Your task to perform on an android device: choose inbox layout in the gmail app Image 0: 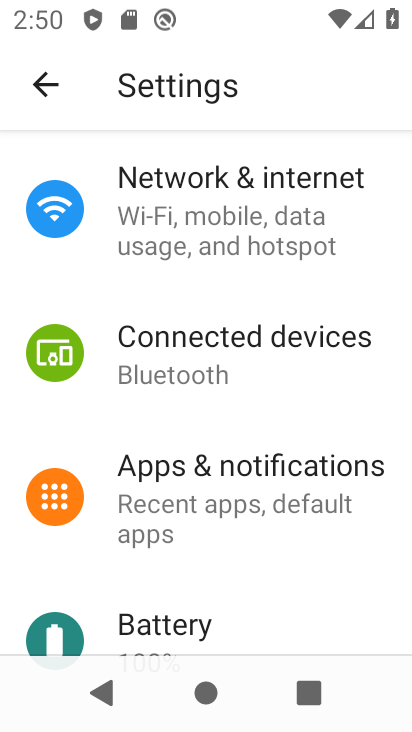
Step 0: drag from (229, 579) to (184, 309)
Your task to perform on an android device: choose inbox layout in the gmail app Image 1: 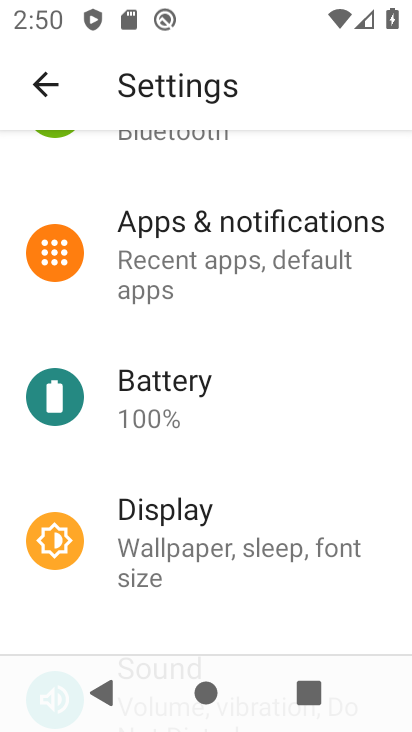
Step 1: press home button
Your task to perform on an android device: choose inbox layout in the gmail app Image 2: 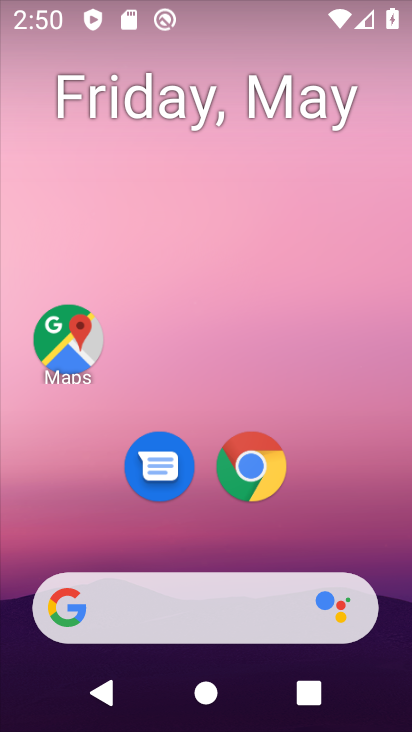
Step 2: drag from (201, 528) to (213, 144)
Your task to perform on an android device: choose inbox layout in the gmail app Image 3: 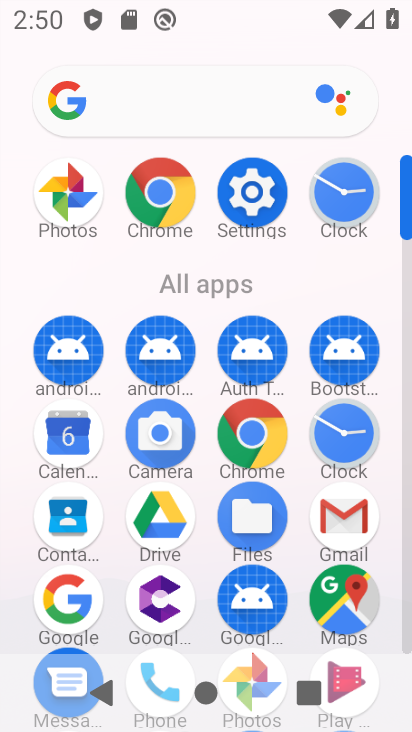
Step 3: click (341, 498)
Your task to perform on an android device: choose inbox layout in the gmail app Image 4: 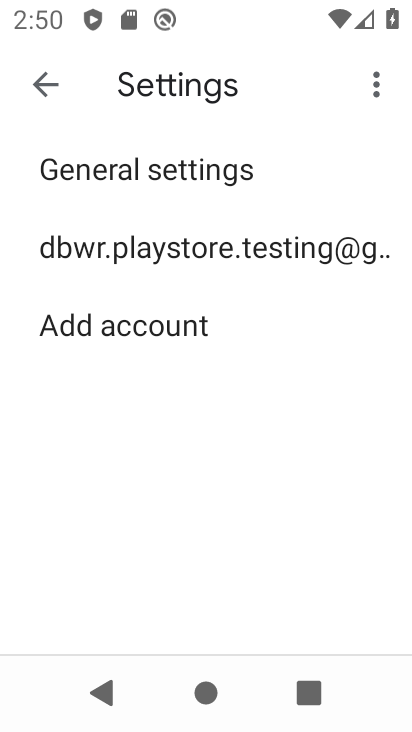
Step 4: click (147, 242)
Your task to perform on an android device: choose inbox layout in the gmail app Image 5: 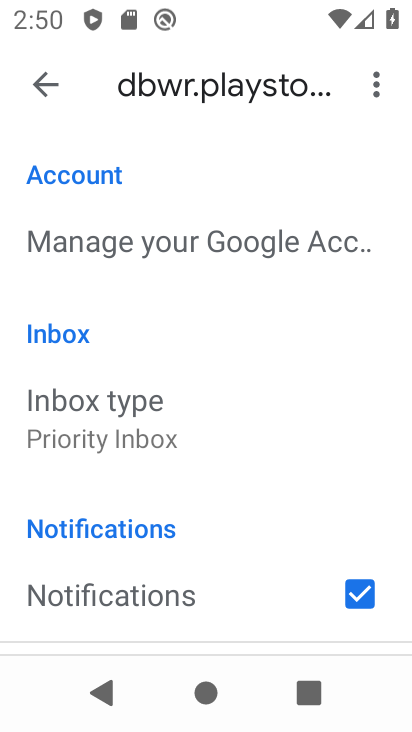
Step 5: click (156, 407)
Your task to perform on an android device: choose inbox layout in the gmail app Image 6: 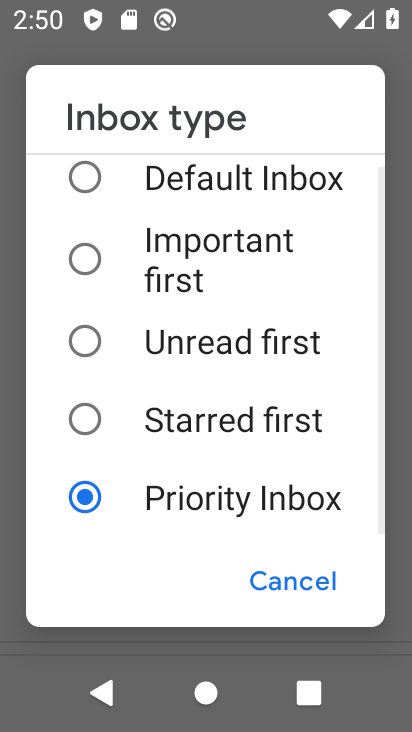
Step 6: click (139, 419)
Your task to perform on an android device: choose inbox layout in the gmail app Image 7: 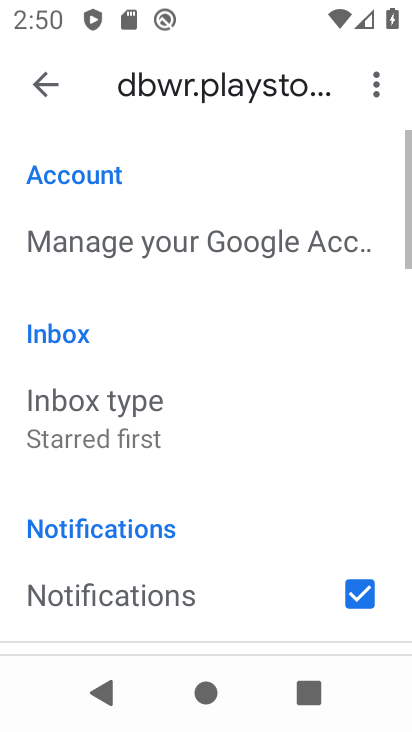
Step 7: task complete